Your task to perform on an android device: Open accessibility settings Image 0: 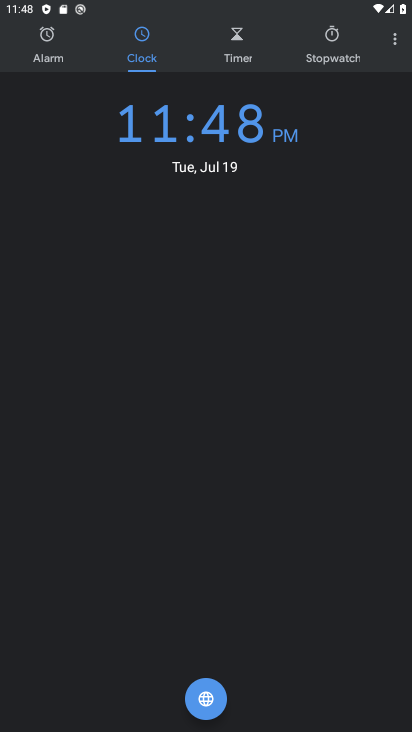
Step 0: press home button
Your task to perform on an android device: Open accessibility settings Image 1: 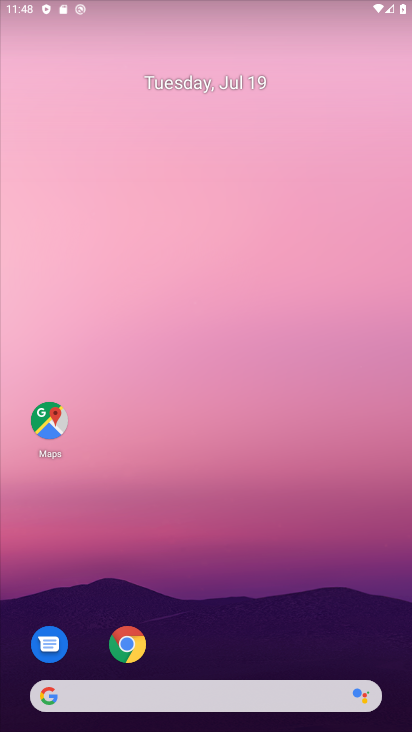
Step 1: drag from (244, 675) to (223, 9)
Your task to perform on an android device: Open accessibility settings Image 2: 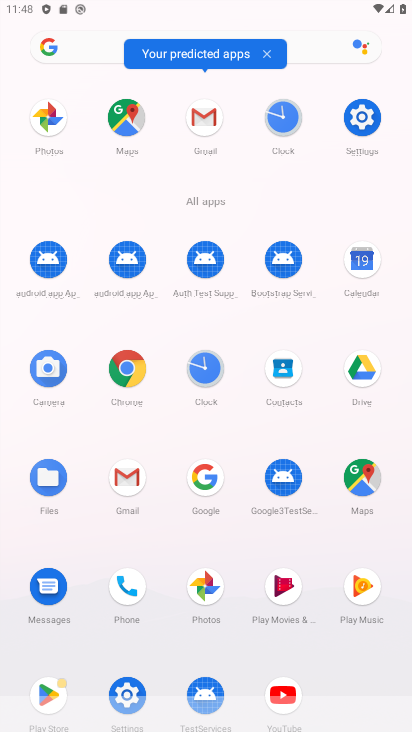
Step 2: click (360, 148)
Your task to perform on an android device: Open accessibility settings Image 3: 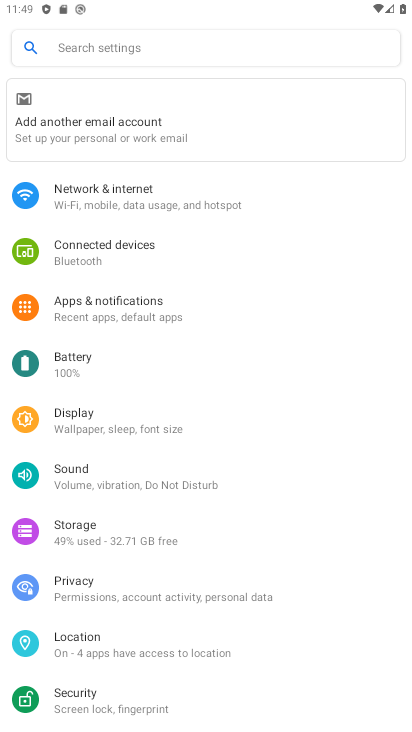
Step 3: drag from (113, 566) to (178, 248)
Your task to perform on an android device: Open accessibility settings Image 4: 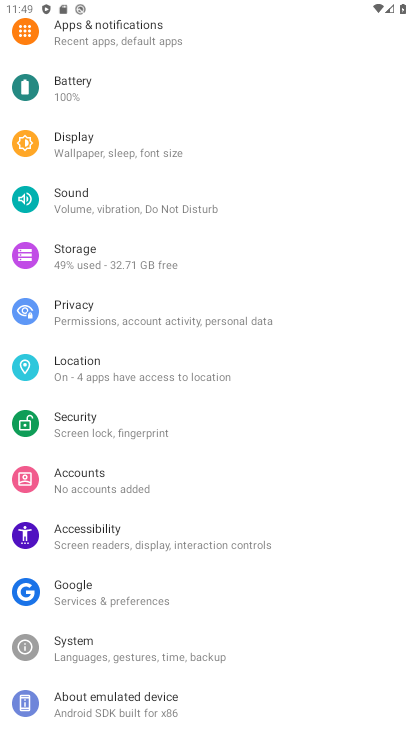
Step 4: click (181, 538)
Your task to perform on an android device: Open accessibility settings Image 5: 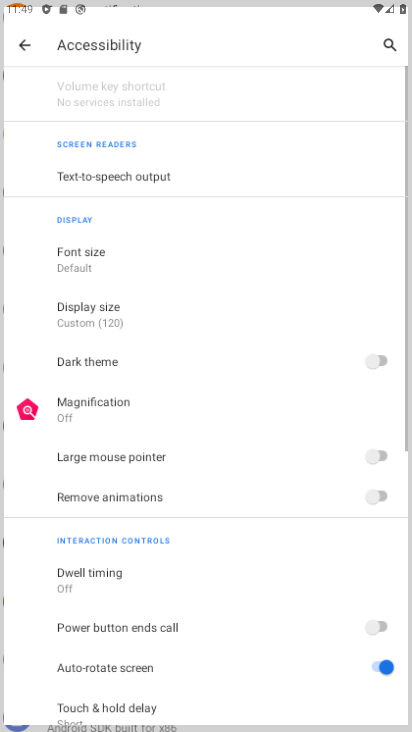
Step 5: task complete